Your task to perform on an android device: turn off sleep mode Image 0: 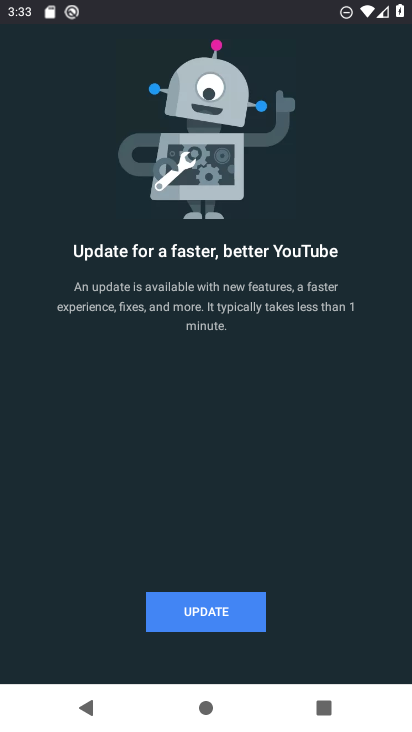
Step 0: drag from (317, 9) to (229, 665)
Your task to perform on an android device: turn off sleep mode Image 1: 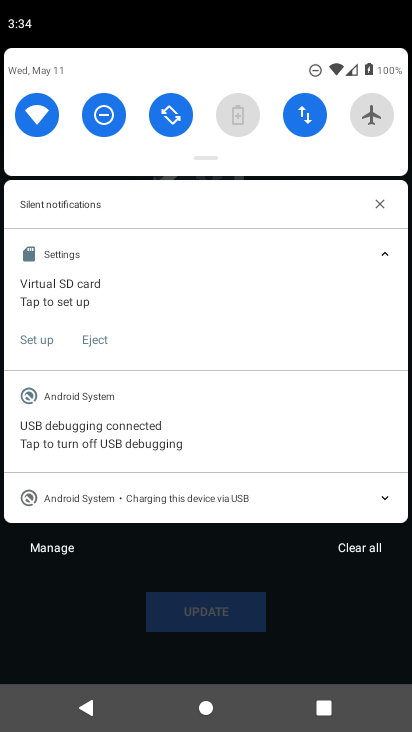
Step 1: drag from (238, 148) to (318, 553)
Your task to perform on an android device: turn off sleep mode Image 2: 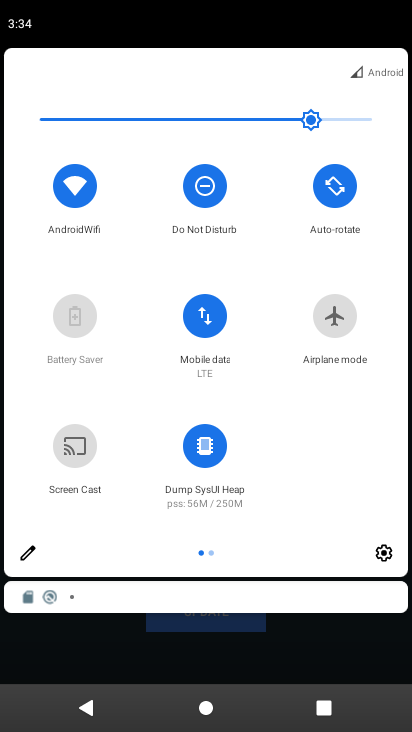
Step 2: click (24, 545)
Your task to perform on an android device: turn off sleep mode Image 3: 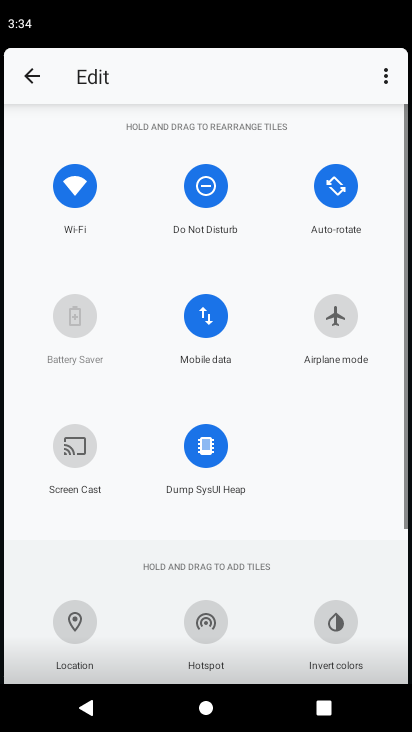
Step 3: task complete